Your task to perform on an android device: turn on translation in the chrome app Image 0: 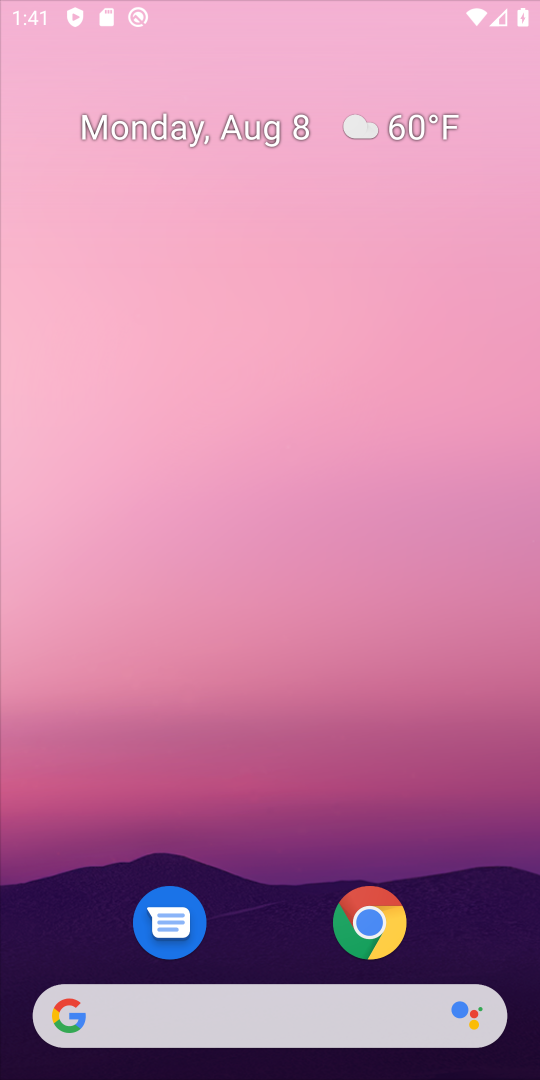
Step 0: drag from (481, 842) to (515, 148)
Your task to perform on an android device: turn on translation in the chrome app Image 1: 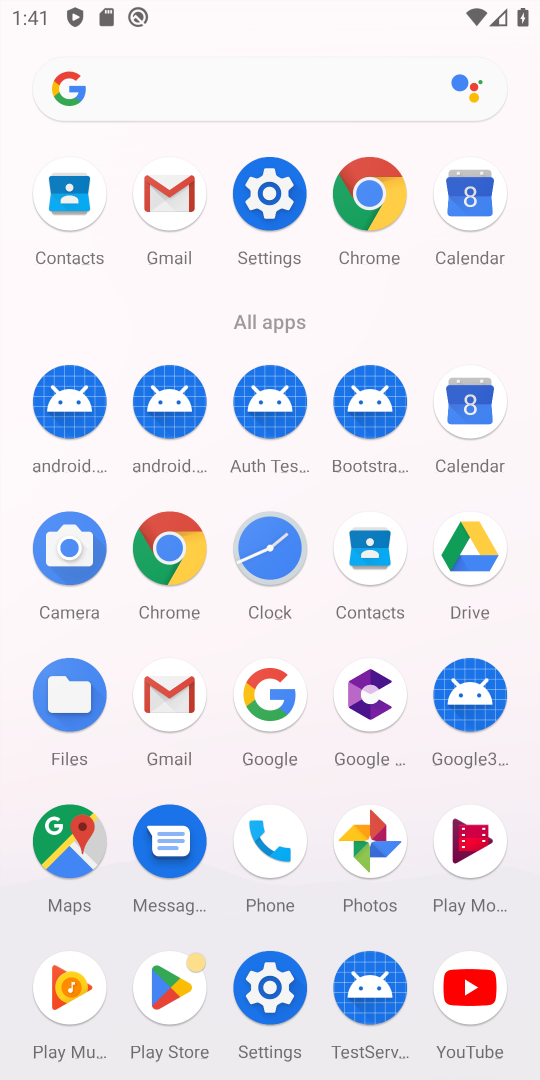
Step 1: click (166, 541)
Your task to perform on an android device: turn on translation in the chrome app Image 2: 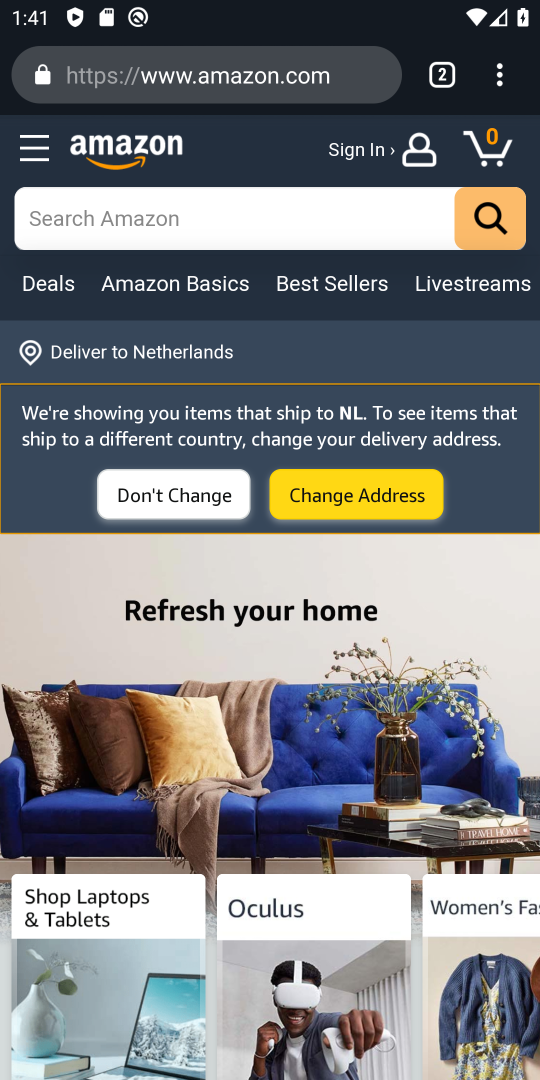
Step 2: drag from (497, 75) to (251, 969)
Your task to perform on an android device: turn on translation in the chrome app Image 3: 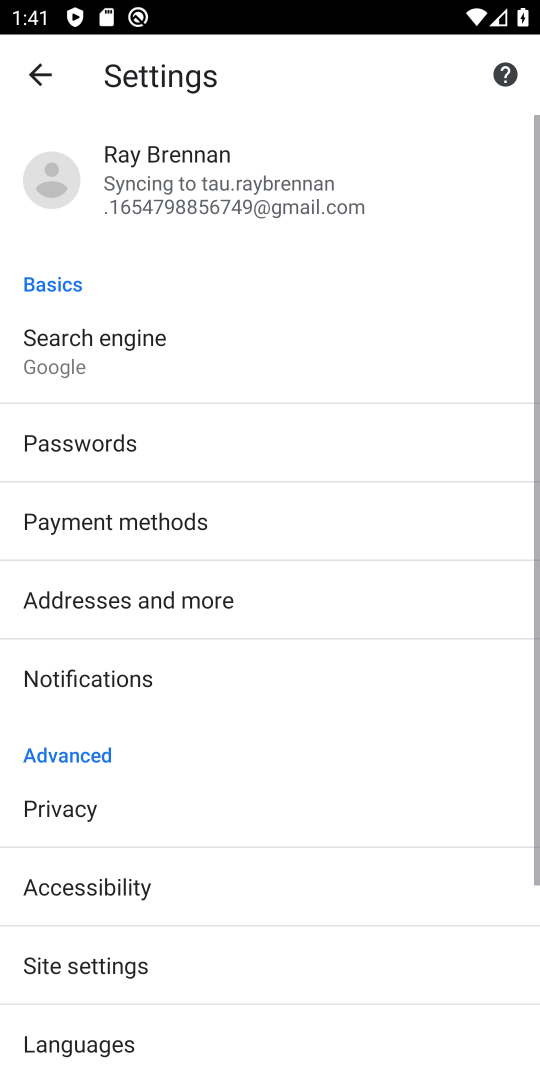
Step 3: drag from (240, 853) to (312, 339)
Your task to perform on an android device: turn on translation in the chrome app Image 4: 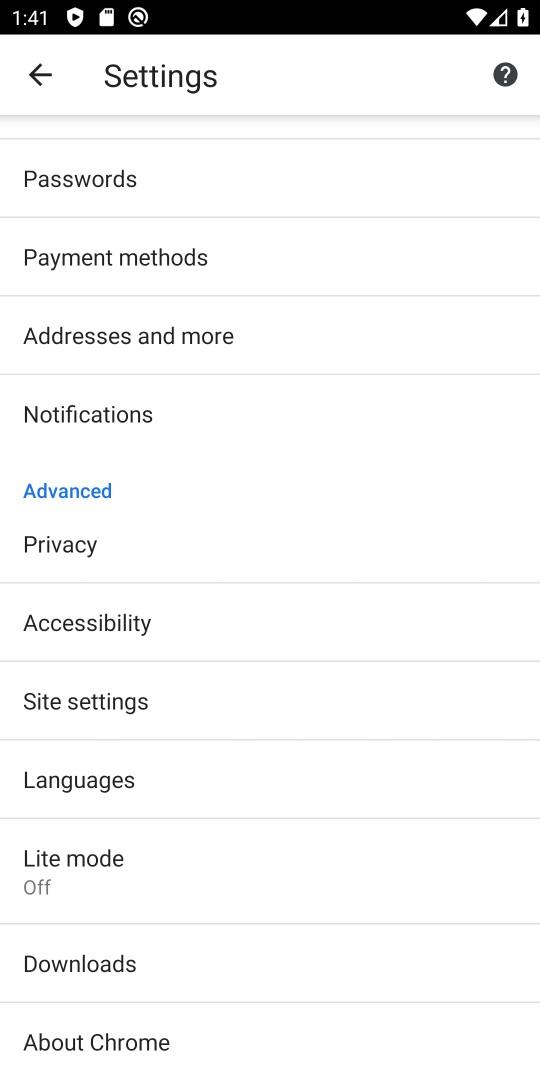
Step 4: click (64, 782)
Your task to perform on an android device: turn on translation in the chrome app Image 5: 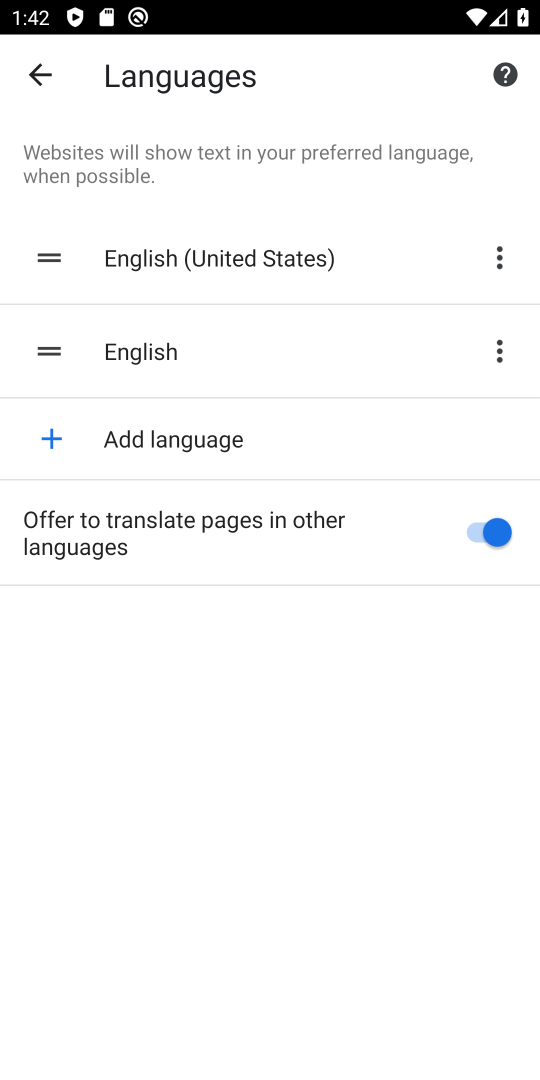
Step 5: task complete